Your task to perform on an android device: Go to accessibility settings Image 0: 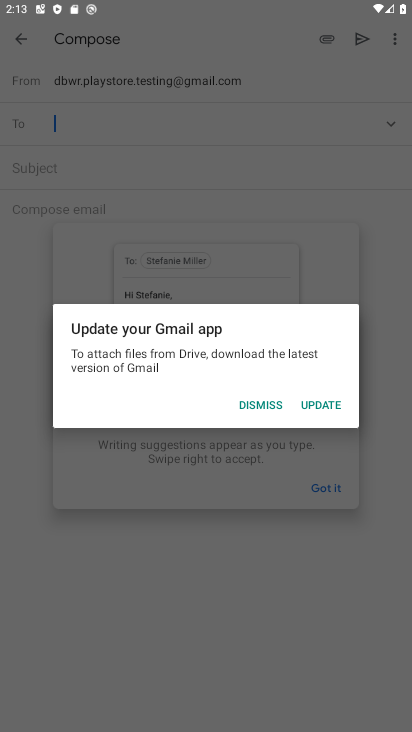
Step 0: press home button
Your task to perform on an android device: Go to accessibility settings Image 1: 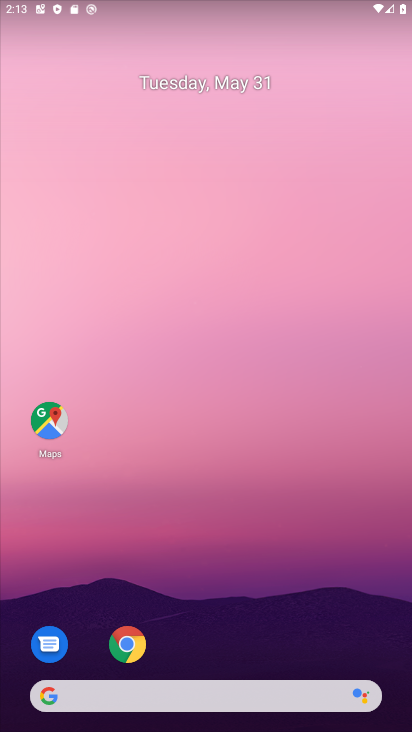
Step 1: drag from (399, 708) to (370, 127)
Your task to perform on an android device: Go to accessibility settings Image 2: 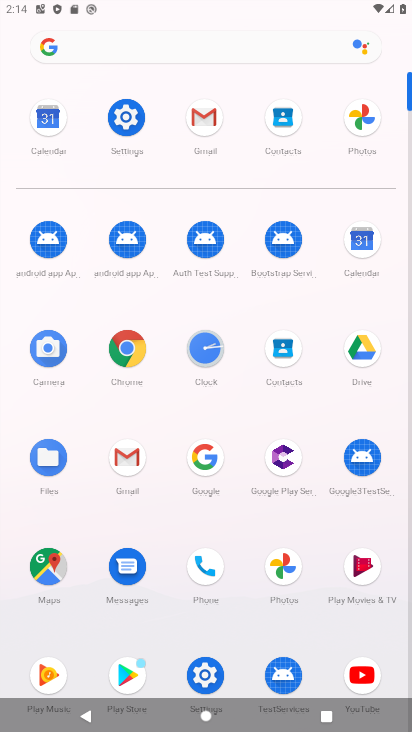
Step 2: click (208, 674)
Your task to perform on an android device: Go to accessibility settings Image 3: 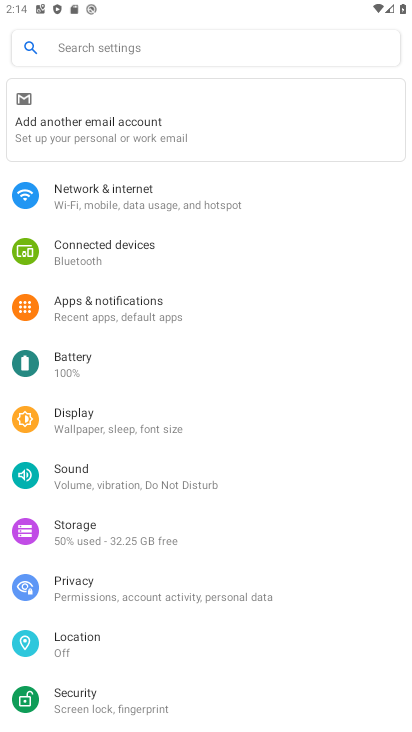
Step 3: drag from (298, 674) to (338, 196)
Your task to perform on an android device: Go to accessibility settings Image 4: 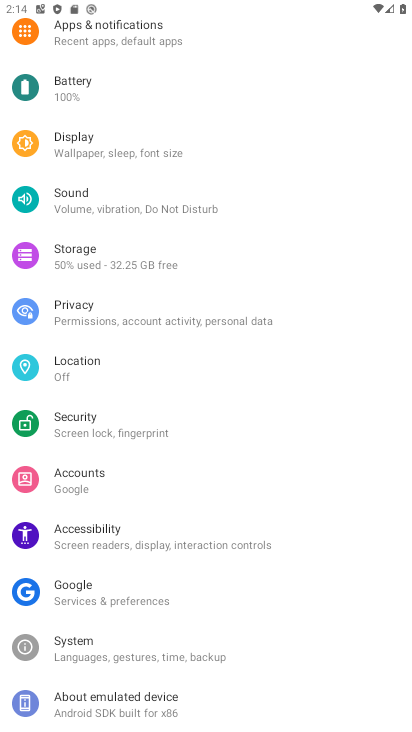
Step 4: click (100, 534)
Your task to perform on an android device: Go to accessibility settings Image 5: 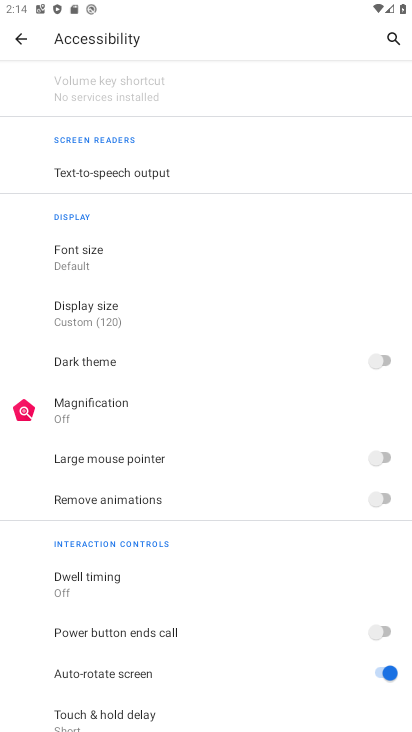
Step 5: task complete